Your task to perform on an android device: Show me the alarms in the clock app Image 0: 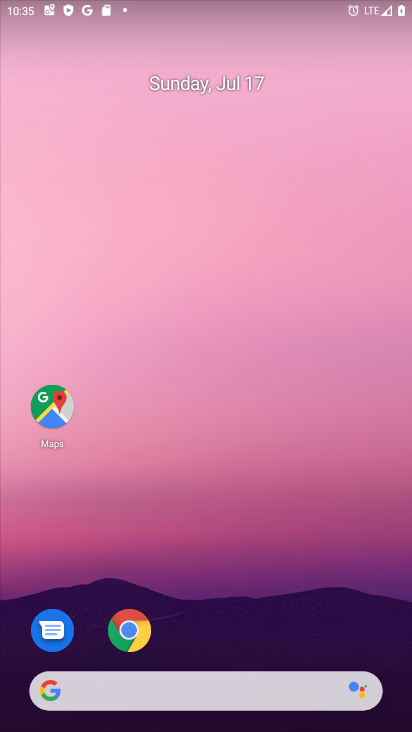
Step 0: drag from (219, 639) to (222, 91)
Your task to perform on an android device: Show me the alarms in the clock app Image 1: 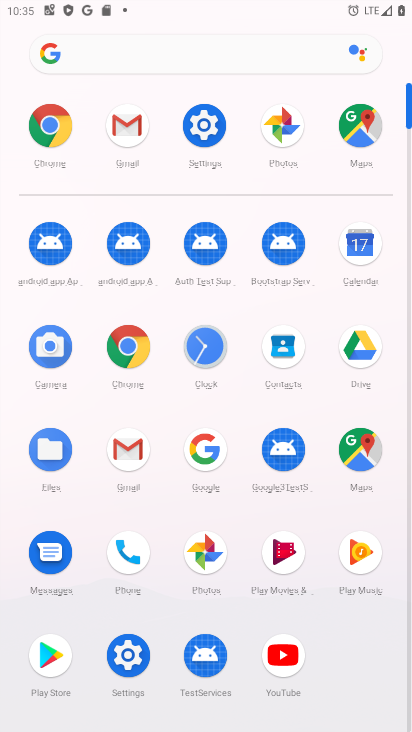
Step 1: click (201, 340)
Your task to perform on an android device: Show me the alarms in the clock app Image 2: 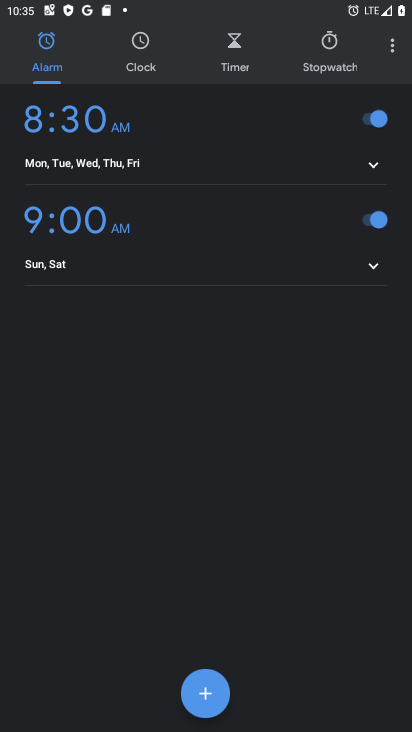
Step 2: task complete